Your task to perform on an android device: Go to battery settings Image 0: 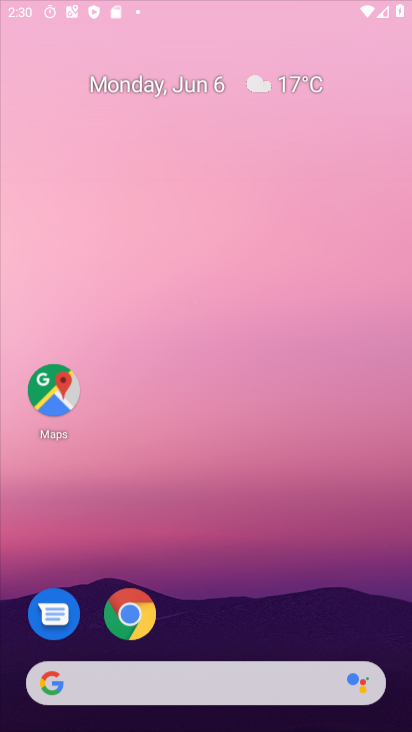
Step 0: click (288, 73)
Your task to perform on an android device: Go to battery settings Image 1: 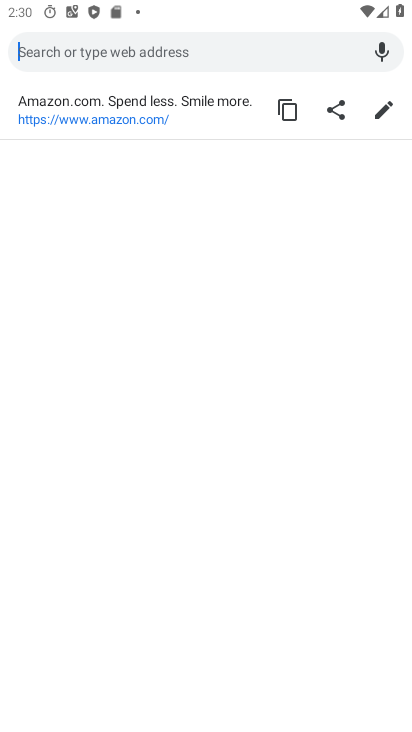
Step 1: press home button
Your task to perform on an android device: Go to battery settings Image 2: 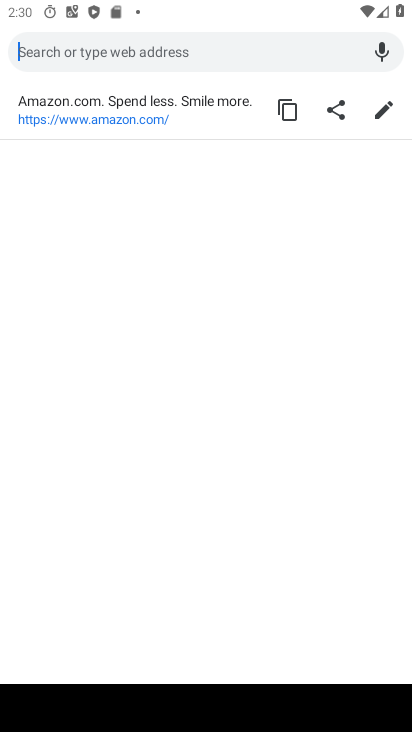
Step 2: click (191, 39)
Your task to perform on an android device: Go to battery settings Image 3: 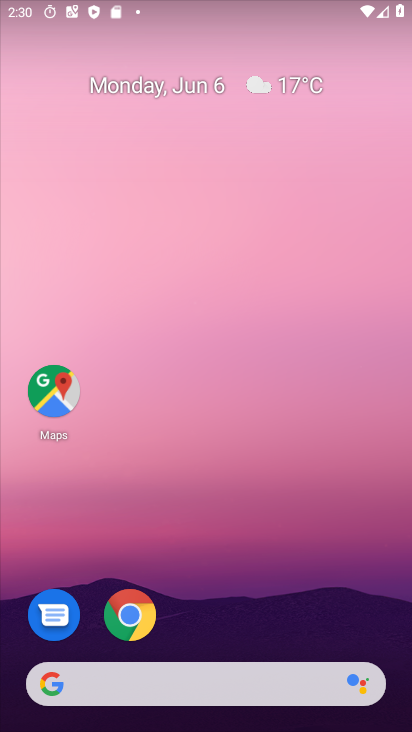
Step 3: drag from (244, 528) to (244, 78)
Your task to perform on an android device: Go to battery settings Image 4: 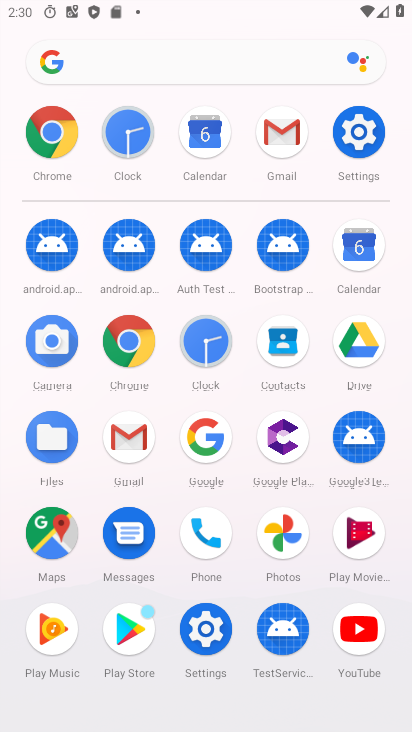
Step 4: click (357, 133)
Your task to perform on an android device: Go to battery settings Image 5: 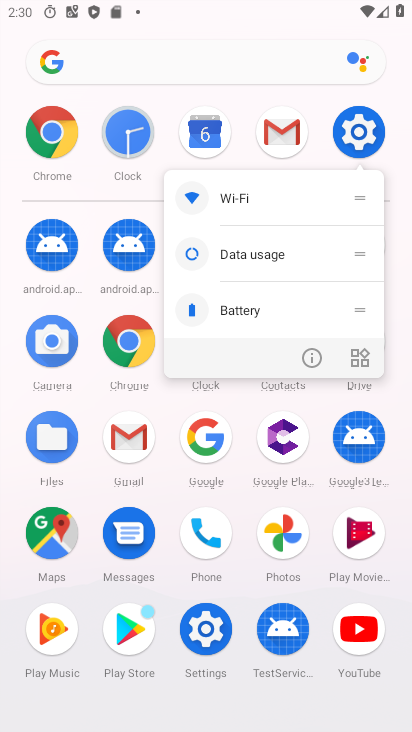
Step 5: click (309, 356)
Your task to perform on an android device: Go to battery settings Image 6: 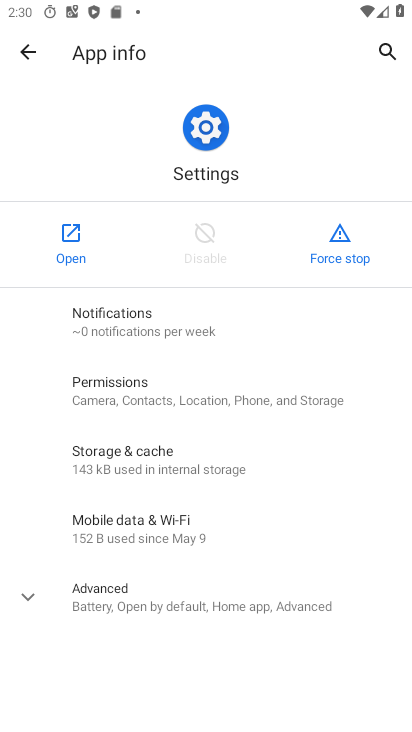
Step 6: click (73, 246)
Your task to perform on an android device: Go to battery settings Image 7: 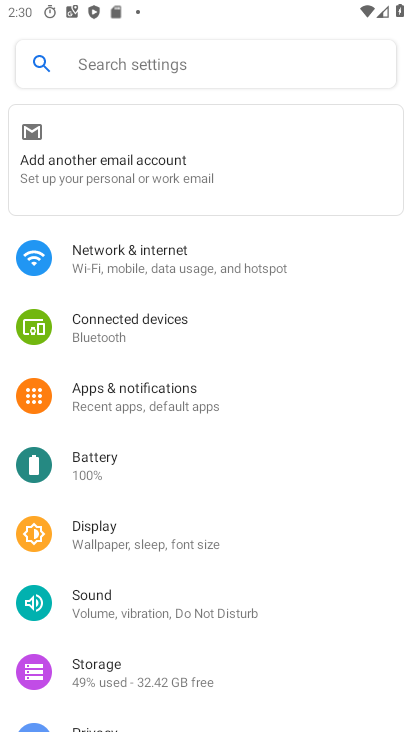
Step 7: click (136, 463)
Your task to perform on an android device: Go to battery settings Image 8: 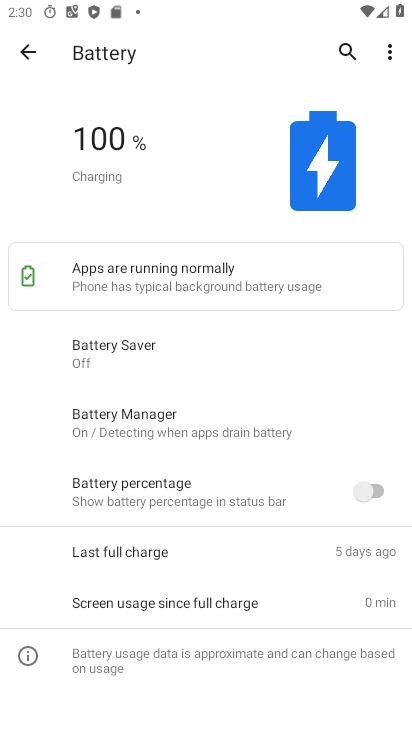
Step 8: task complete